Your task to perform on an android device: Go to internet settings Image 0: 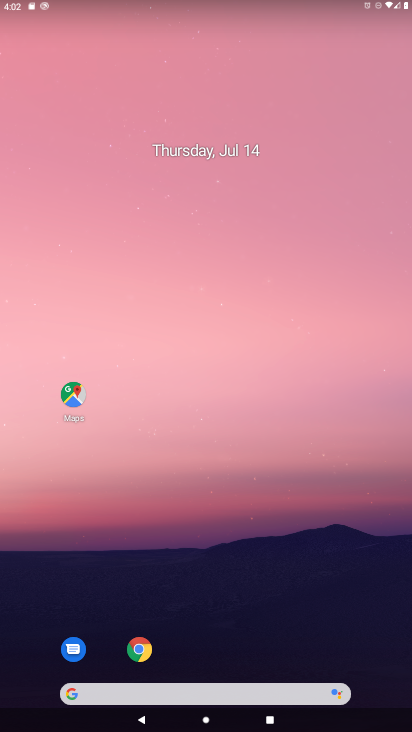
Step 0: drag from (215, 583) to (208, 16)
Your task to perform on an android device: Go to internet settings Image 1: 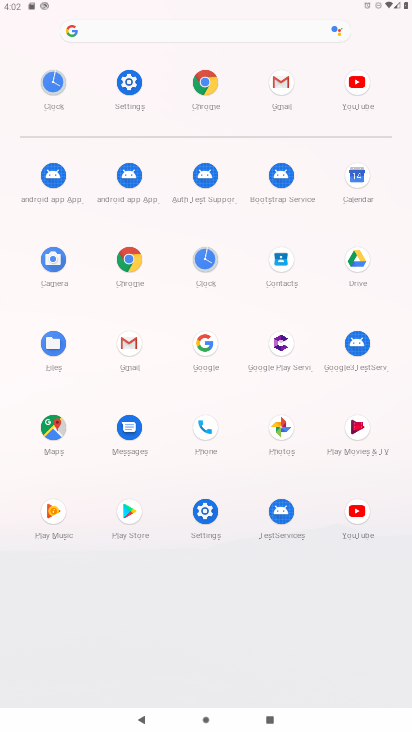
Step 1: click (195, 525)
Your task to perform on an android device: Go to internet settings Image 2: 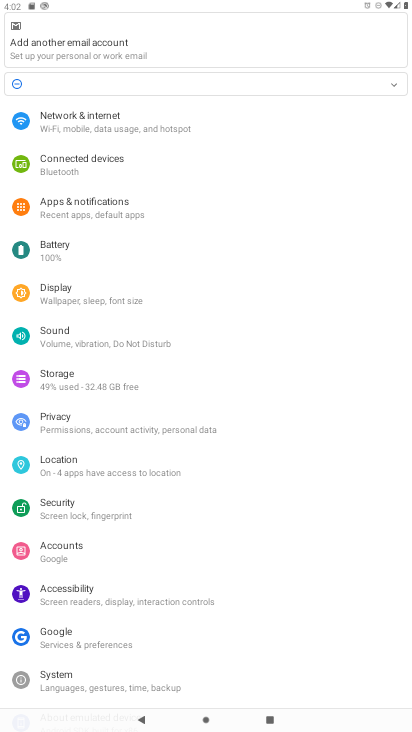
Step 2: click (107, 126)
Your task to perform on an android device: Go to internet settings Image 3: 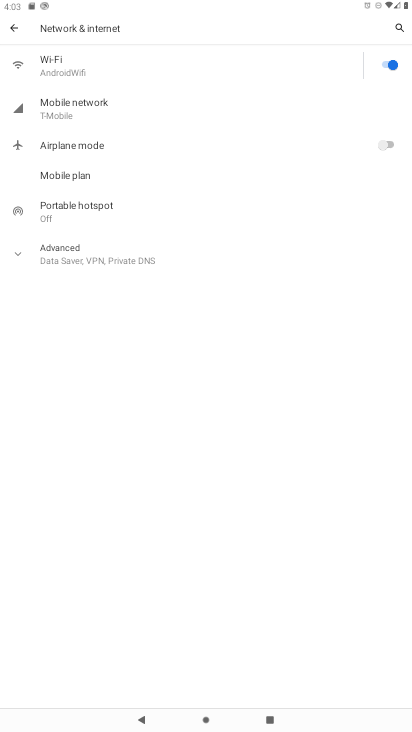
Step 3: task complete